Your task to perform on an android device: turn off priority inbox in the gmail app Image 0: 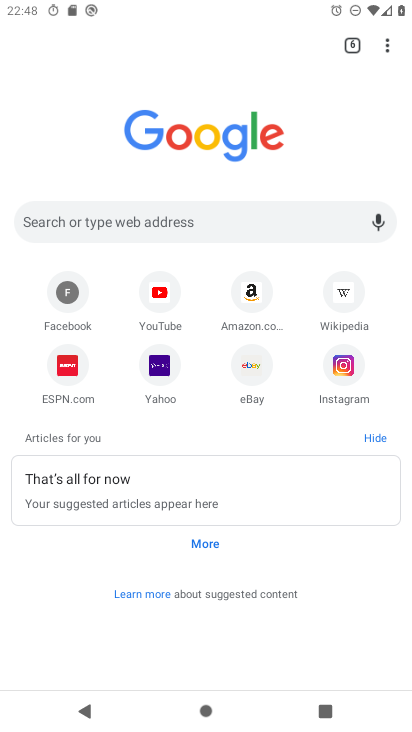
Step 0: press home button
Your task to perform on an android device: turn off priority inbox in the gmail app Image 1: 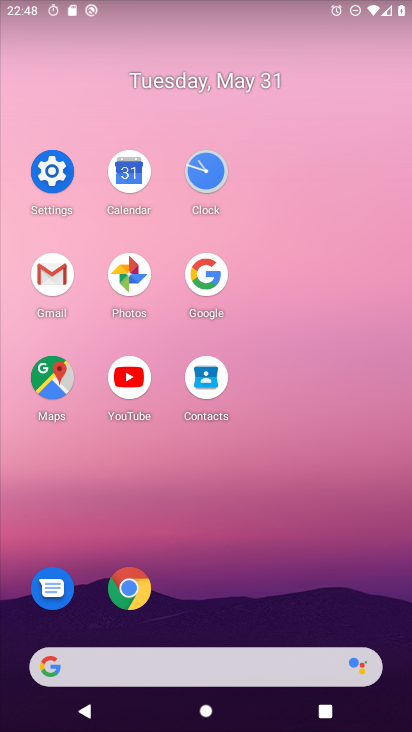
Step 1: click (43, 282)
Your task to perform on an android device: turn off priority inbox in the gmail app Image 2: 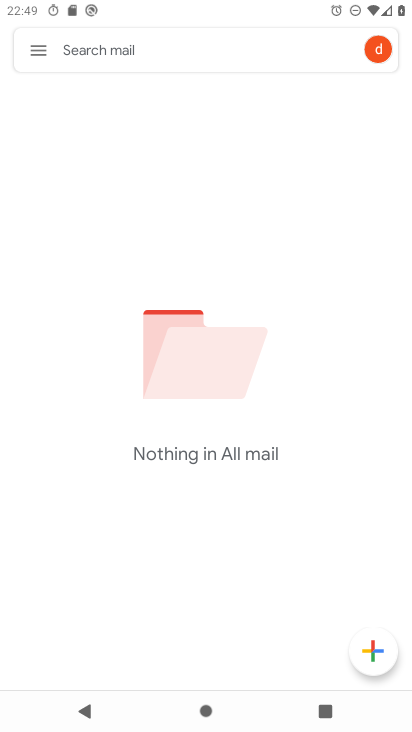
Step 2: click (42, 60)
Your task to perform on an android device: turn off priority inbox in the gmail app Image 3: 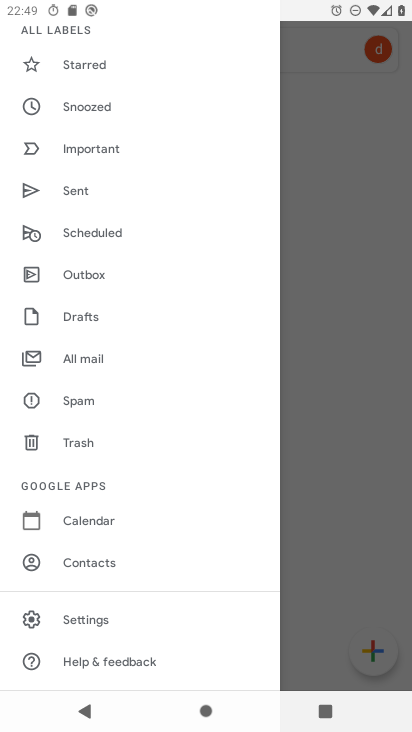
Step 3: click (157, 627)
Your task to perform on an android device: turn off priority inbox in the gmail app Image 4: 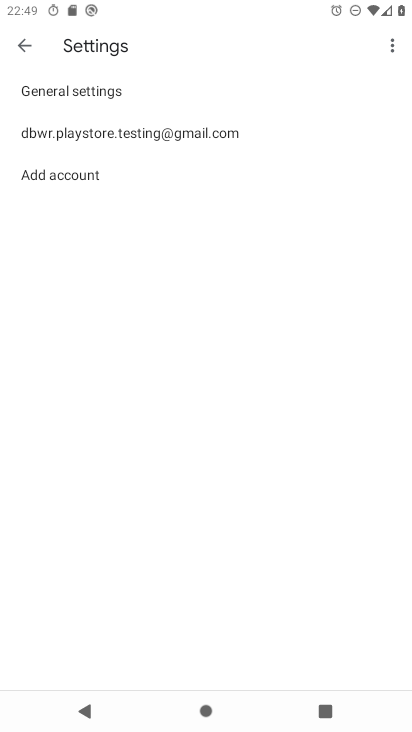
Step 4: click (109, 132)
Your task to perform on an android device: turn off priority inbox in the gmail app Image 5: 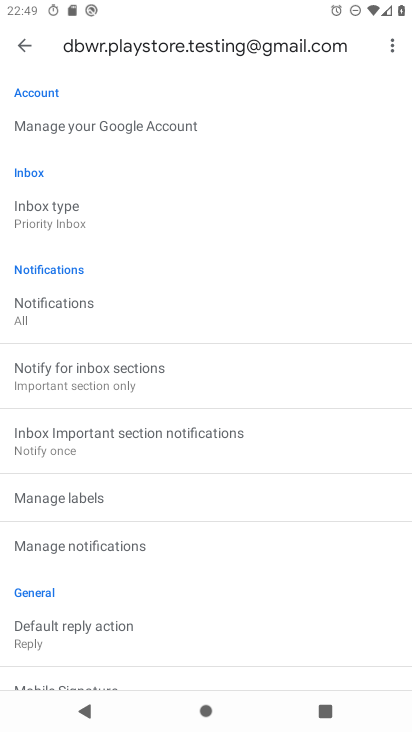
Step 5: click (53, 215)
Your task to perform on an android device: turn off priority inbox in the gmail app Image 6: 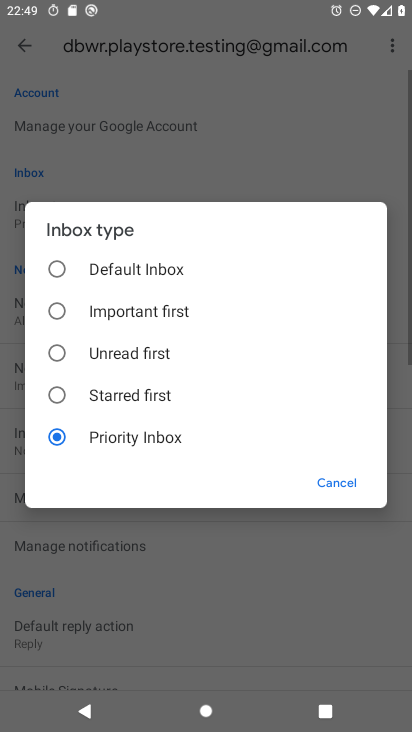
Step 6: click (160, 263)
Your task to perform on an android device: turn off priority inbox in the gmail app Image 7: 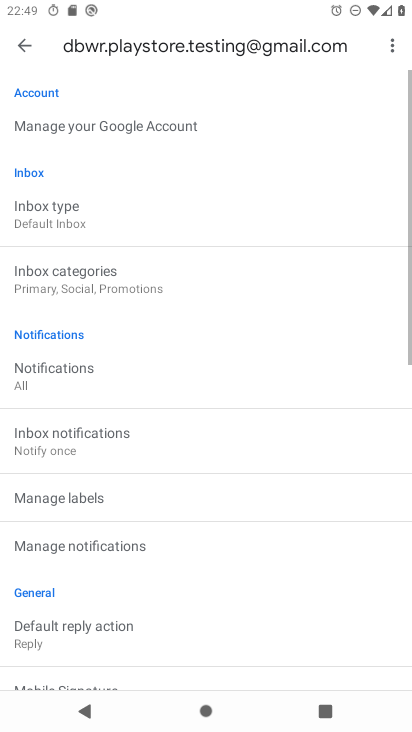
Step 7: task complete